Your task to perform on an android device: Go to ESPN.com Image 0: 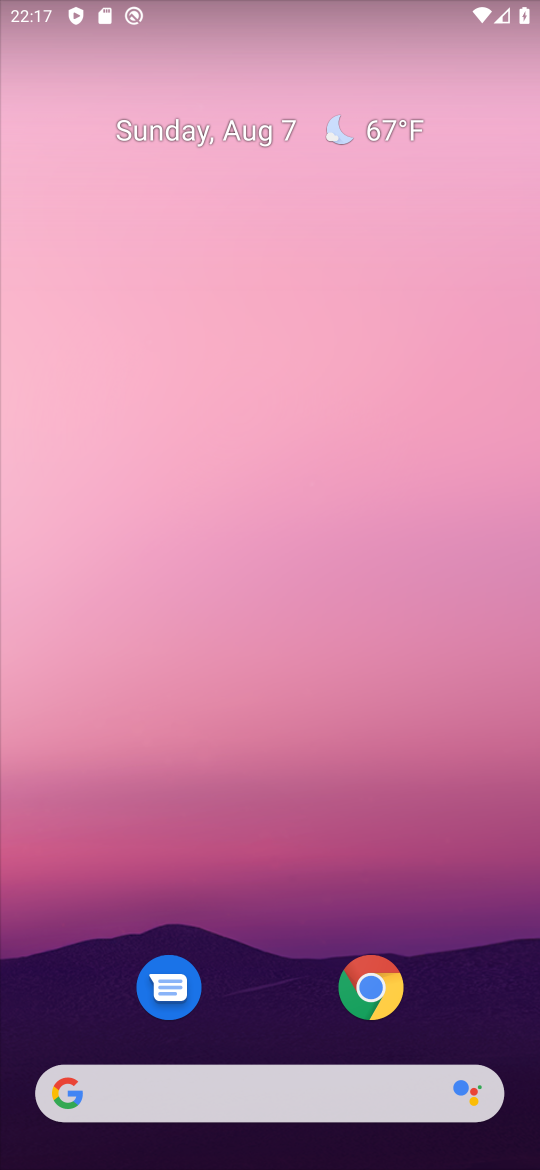
Step 0: drag from (281, 1003) to (212, 5)
Your task to perform on an android device: Go to ESPN.com Image 1: 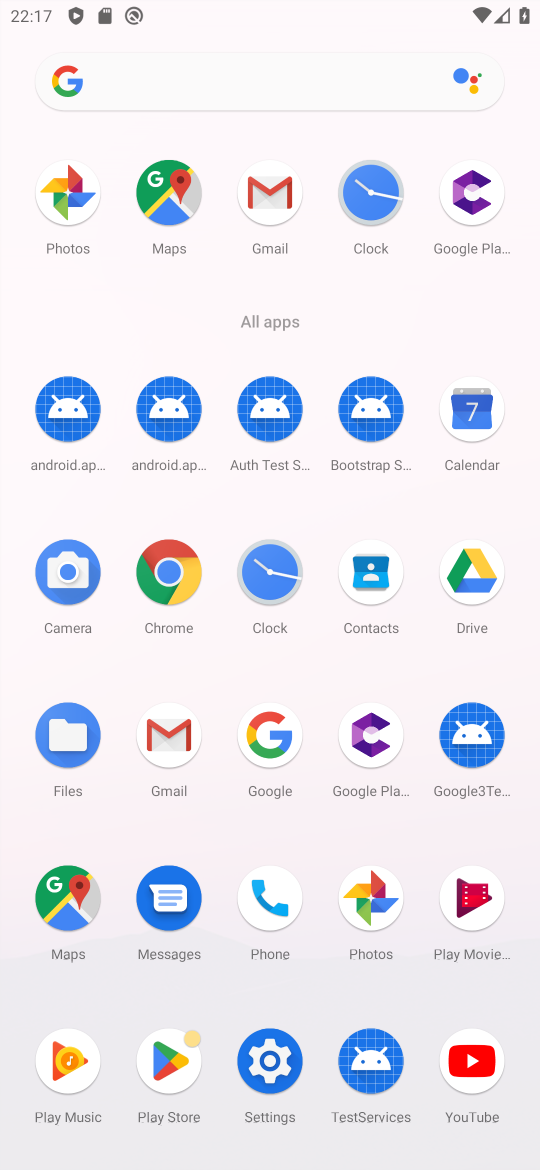
Step 1: click (155, 574)
Your task to perform on an android device: Go to ESPN.com Image 2: 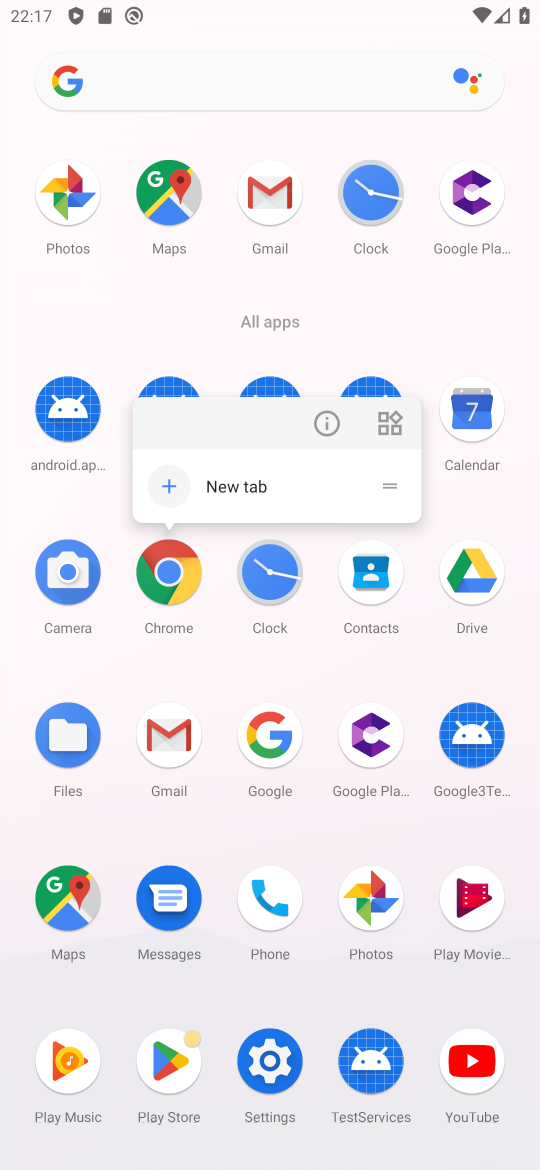
Step 2: click (156, 576)
Your task to perform on an android device: Go to ESPN.com Image 3: 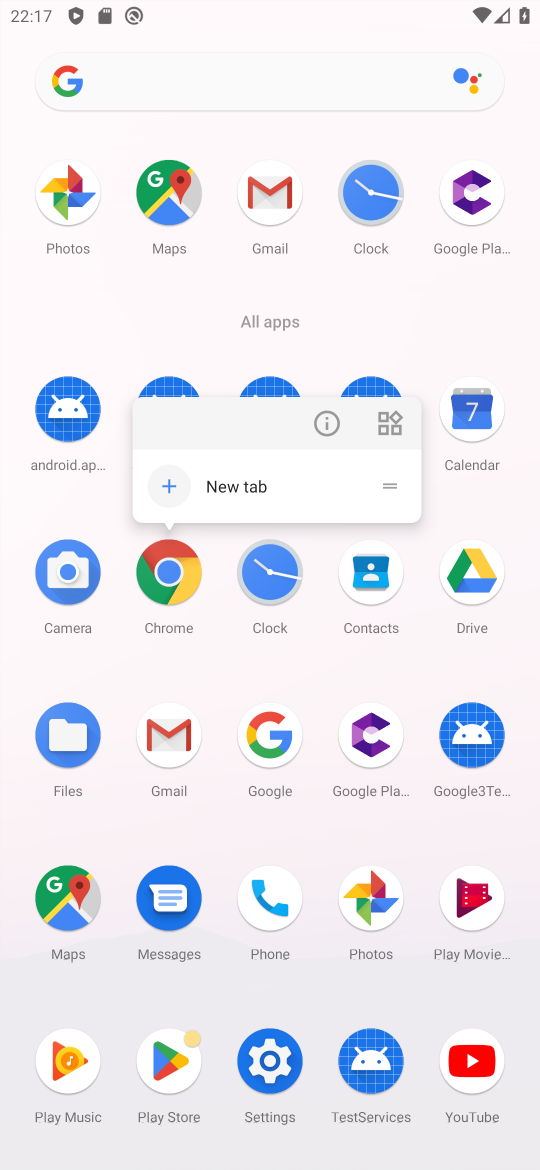
Step 3: click (181, 577)
Your task to perform on an android device: Go to ESPN.com Image 4: 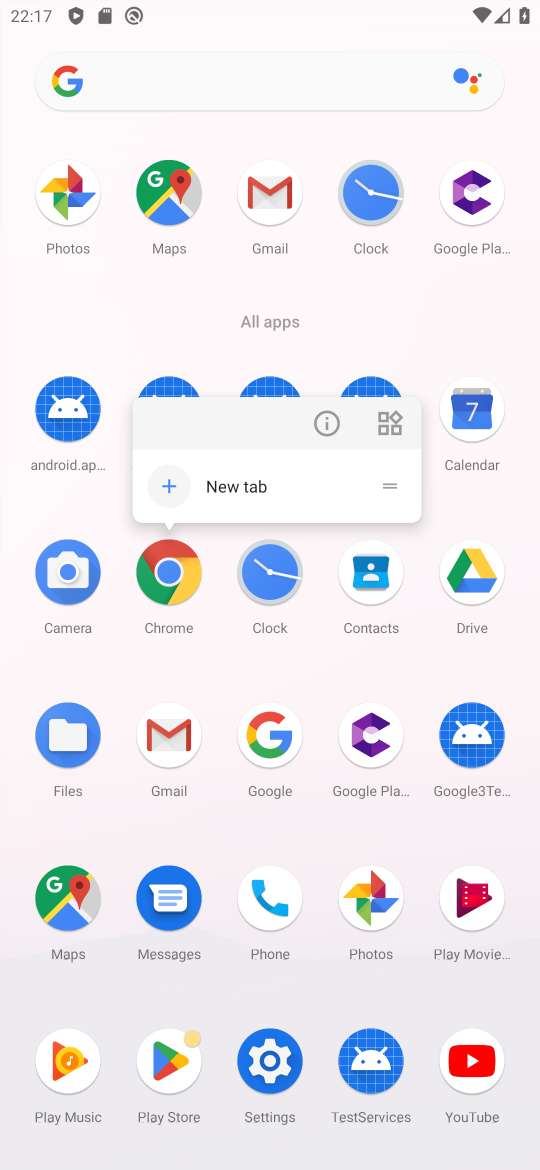
Step 4: click (181, 577)
Your task to perform on an android device: Go to ESPN.com Image 5: 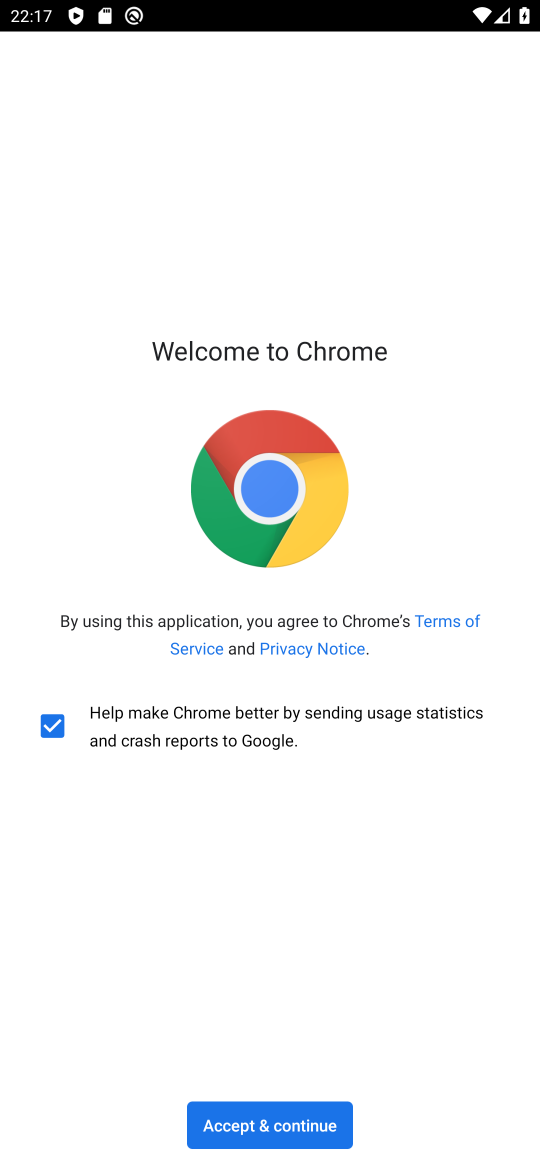
Step 5: click (253, 1121)
Your task to perform on an android device: Go to ESPN.com Image 6: 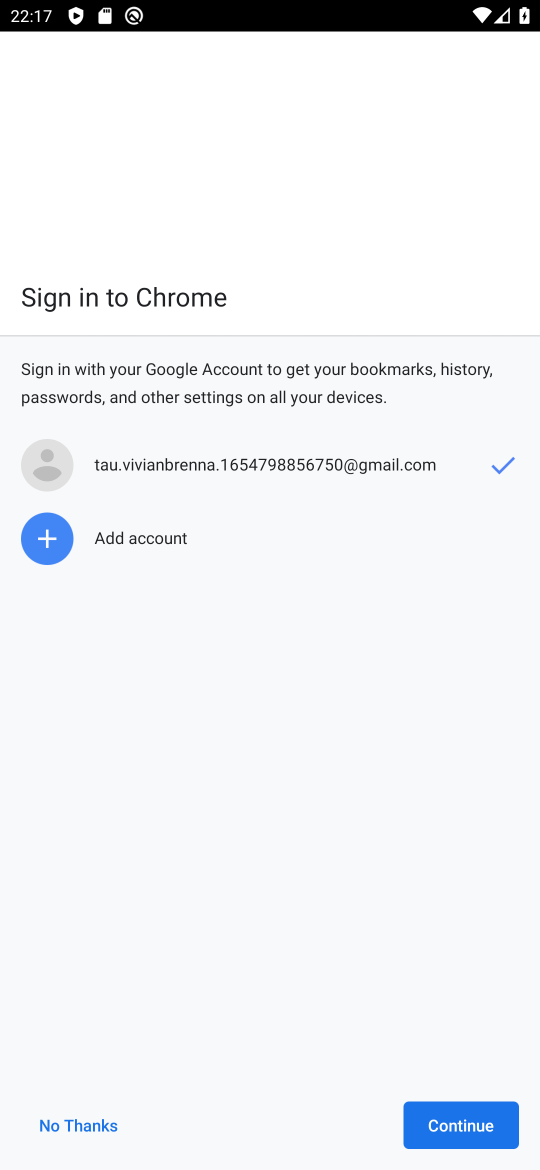
Step 6: click (99, 1113)
Your task to perform on an android device: Go to ESPN.com Image 7: 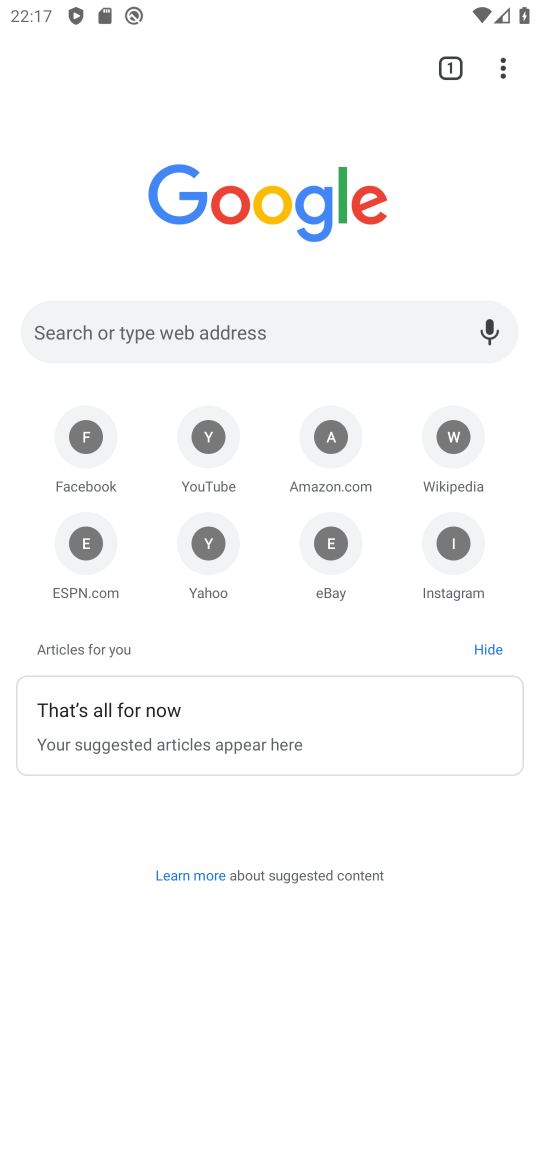
Step 7: click (240, 66)
Your task to perform on an android device: Go to ESPN.com Image 8: 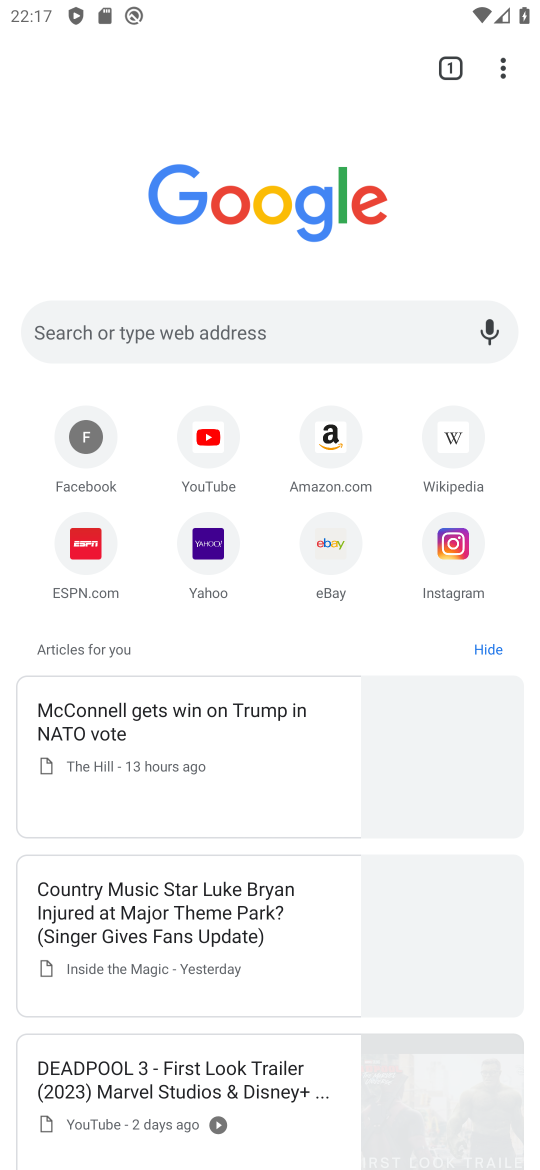
Step 8: click (91, 573)
Your task to perform on an android device: Go to ESPN.com Image 9: 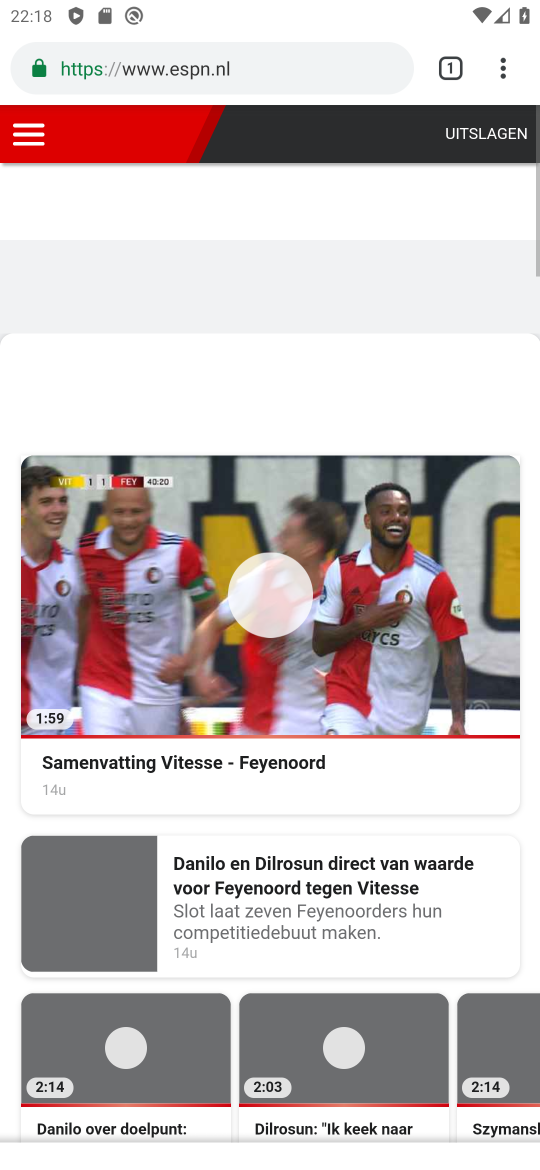
Step 9: task complete